Your task to perform on an android device: Open calendar and show me the first week of next month Image 0: 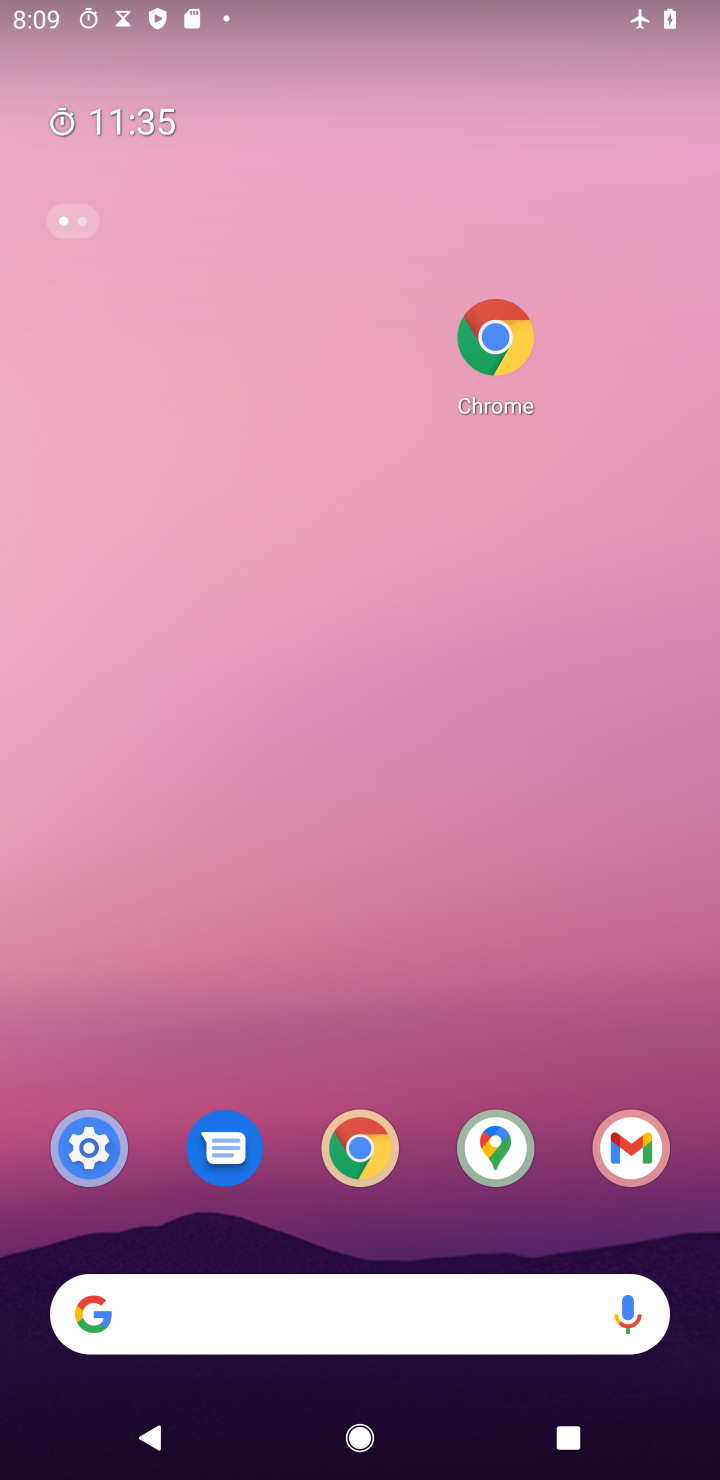
Step 0: press home button
Your task to perform on an android device: Open calendar and show me the first week of next month Image 1: 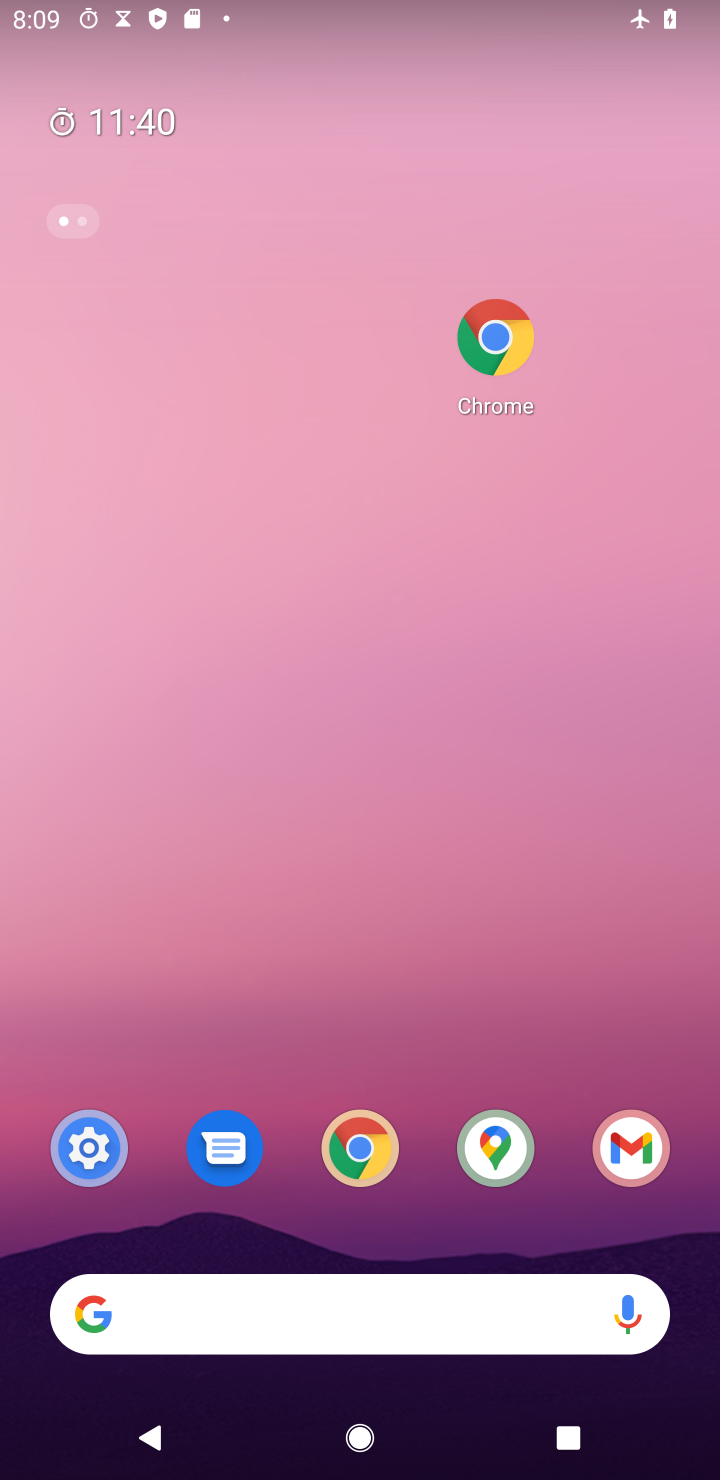
Step 1: drag from (542, 1040) to (454, 166)
Your task to perform on an android device: Open calendar and show me the first week of next month Image 2: 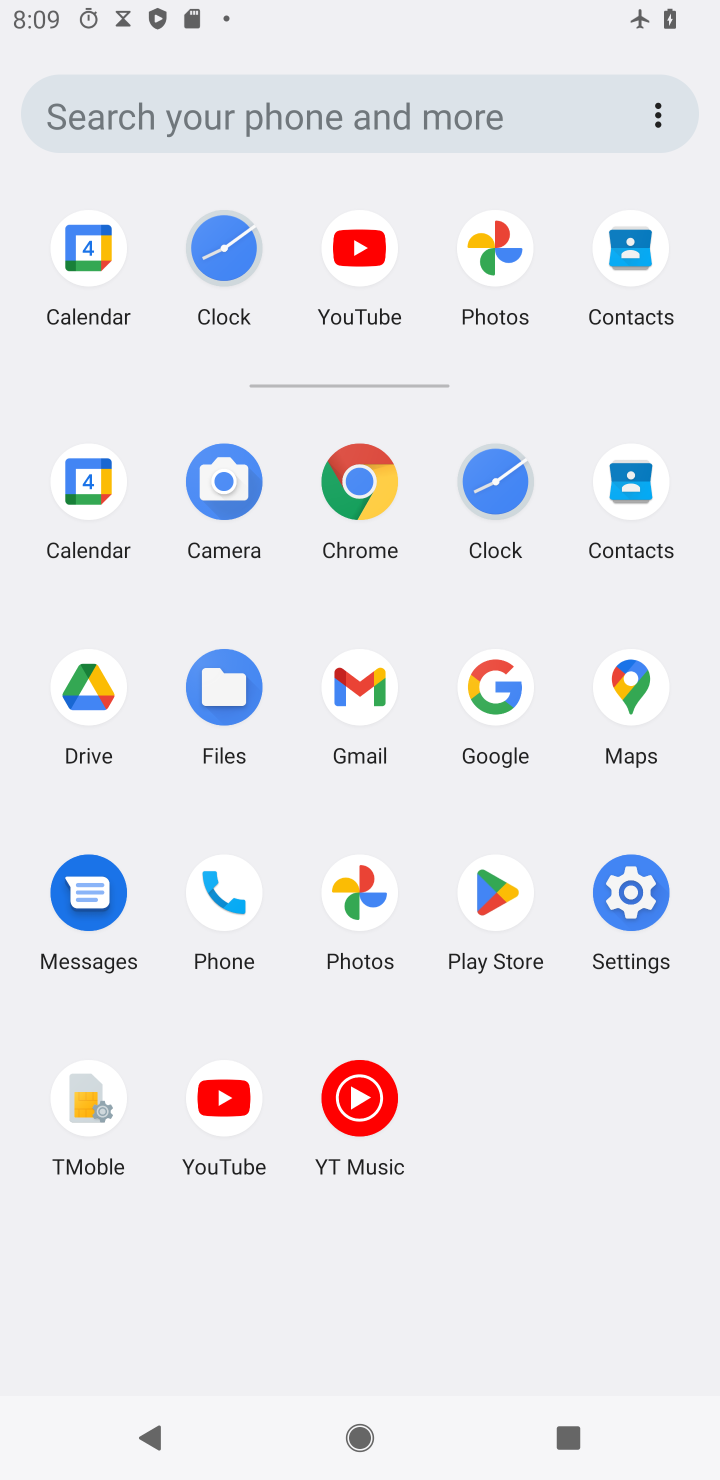
Step 2: click (80, 483)
Your task to perform on an android device: Open calendar and show me the first week of next month Image 3: 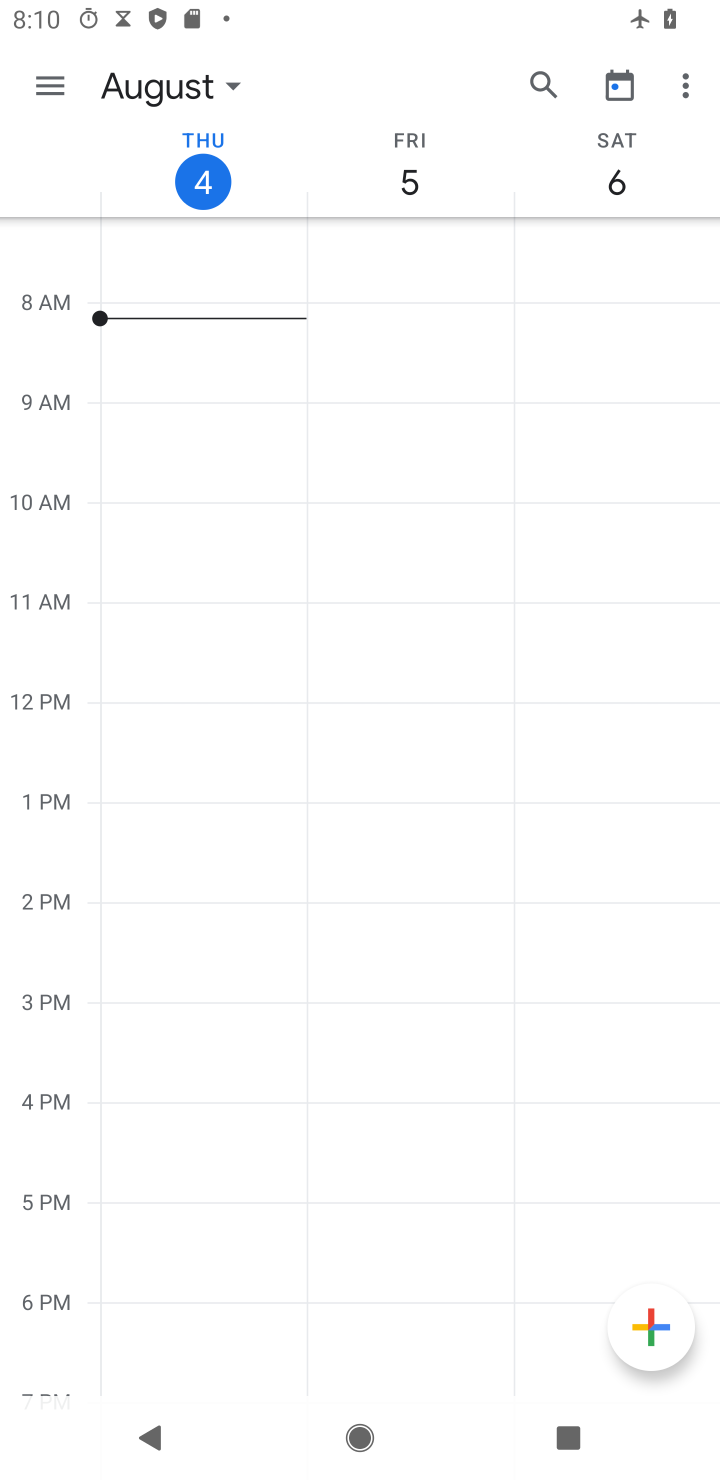
Step 3: click (51, 84)
Your task to perform on an android device: Open calendar and show me the first week of next month Image 4: 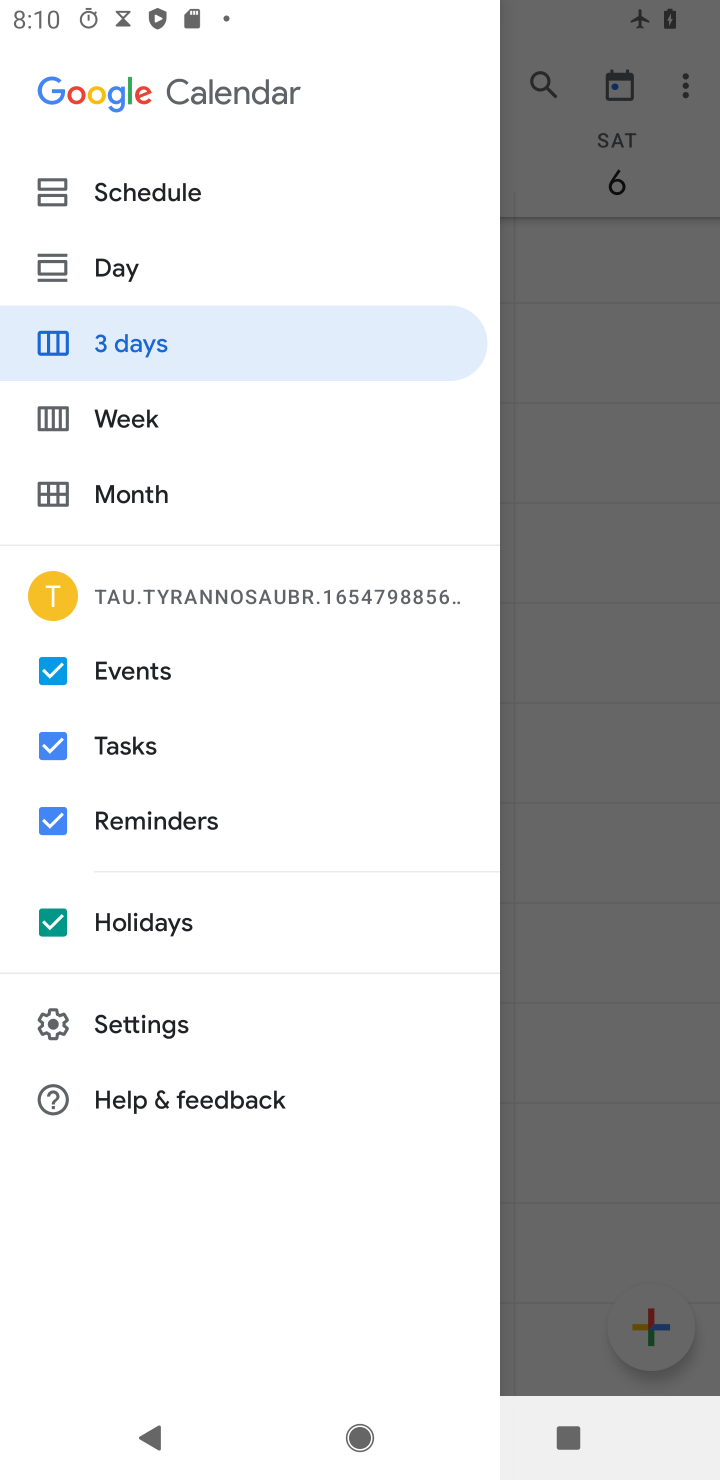
Step 4: click (146, 436)
Your task to perform on an android device: Open calendar and show me the first week of next month Image 5: 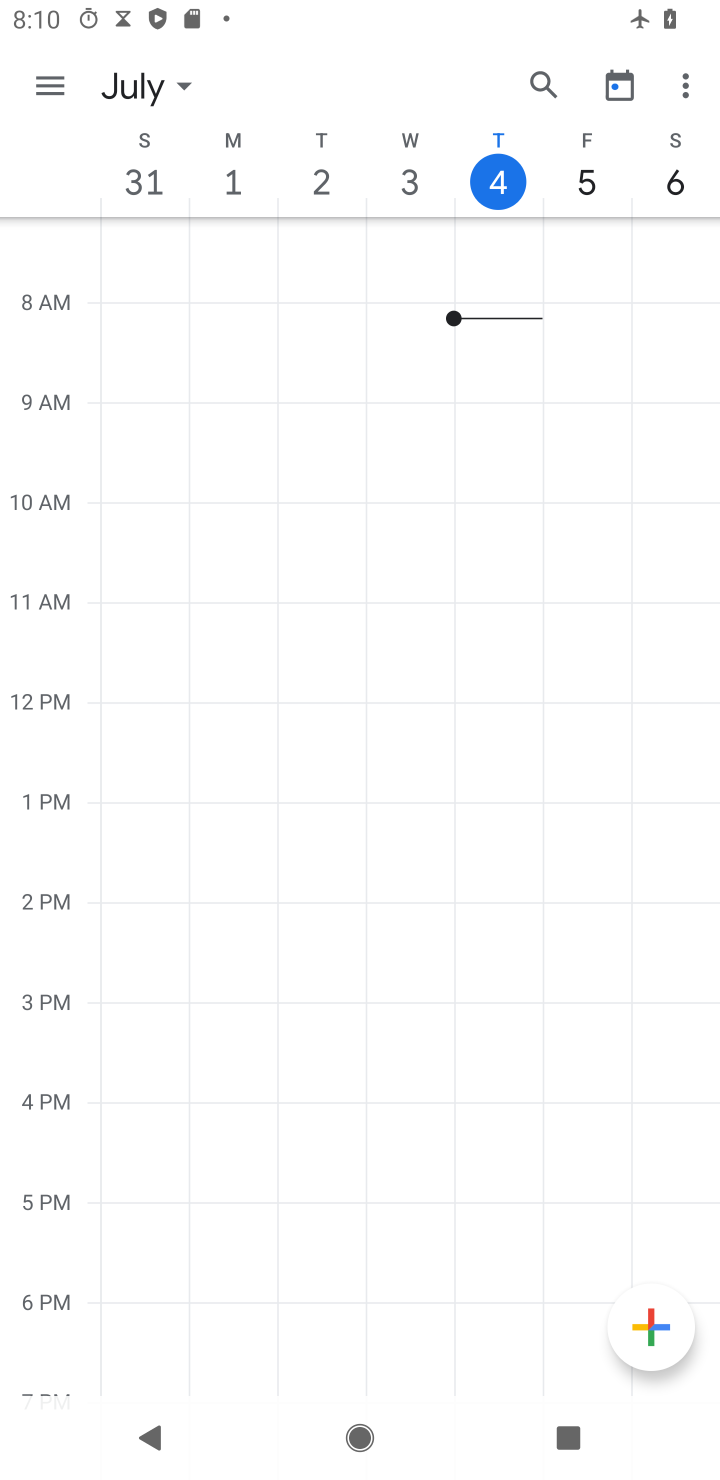
Step 5: click (186, 80)
Your task to perform on an android device: Open calendar and show me the first week of next month Image 6: 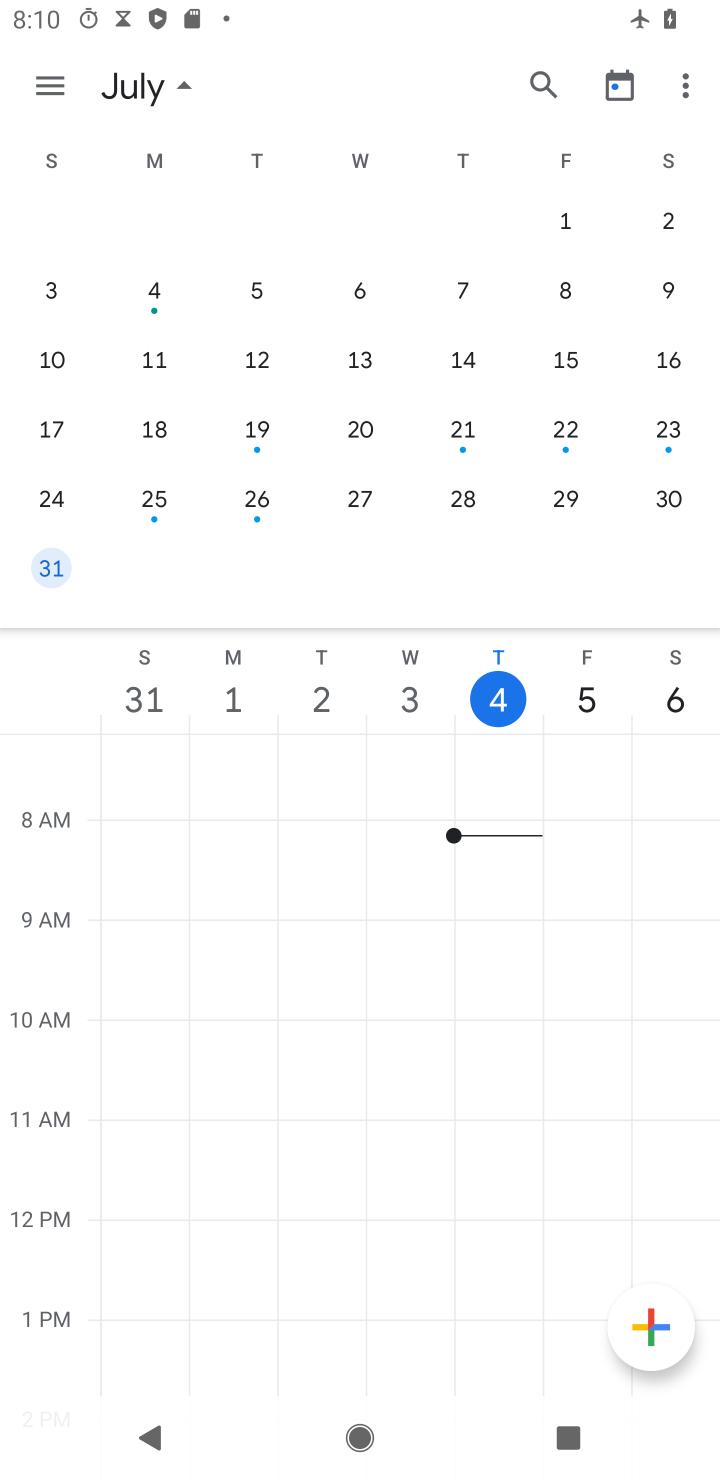
Step 6: drag from (670, 394) to (115, 392)
Your task to perform on an android device: Open calendar and show me the first week of next month Image 7: 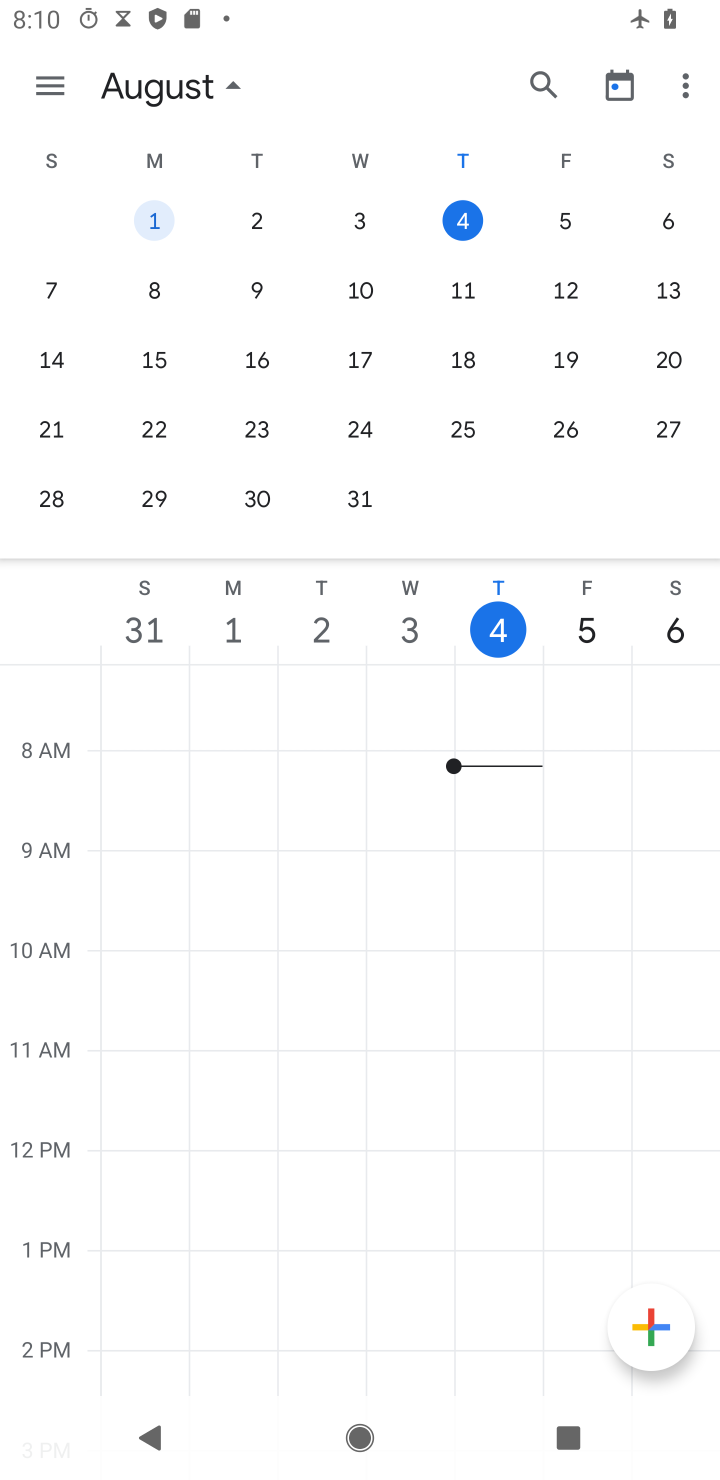
Step 7: drag from (669, 399) to (85, 419)
Your task to perform on an android device: Open calendar and show me the first week of next month Image 8: 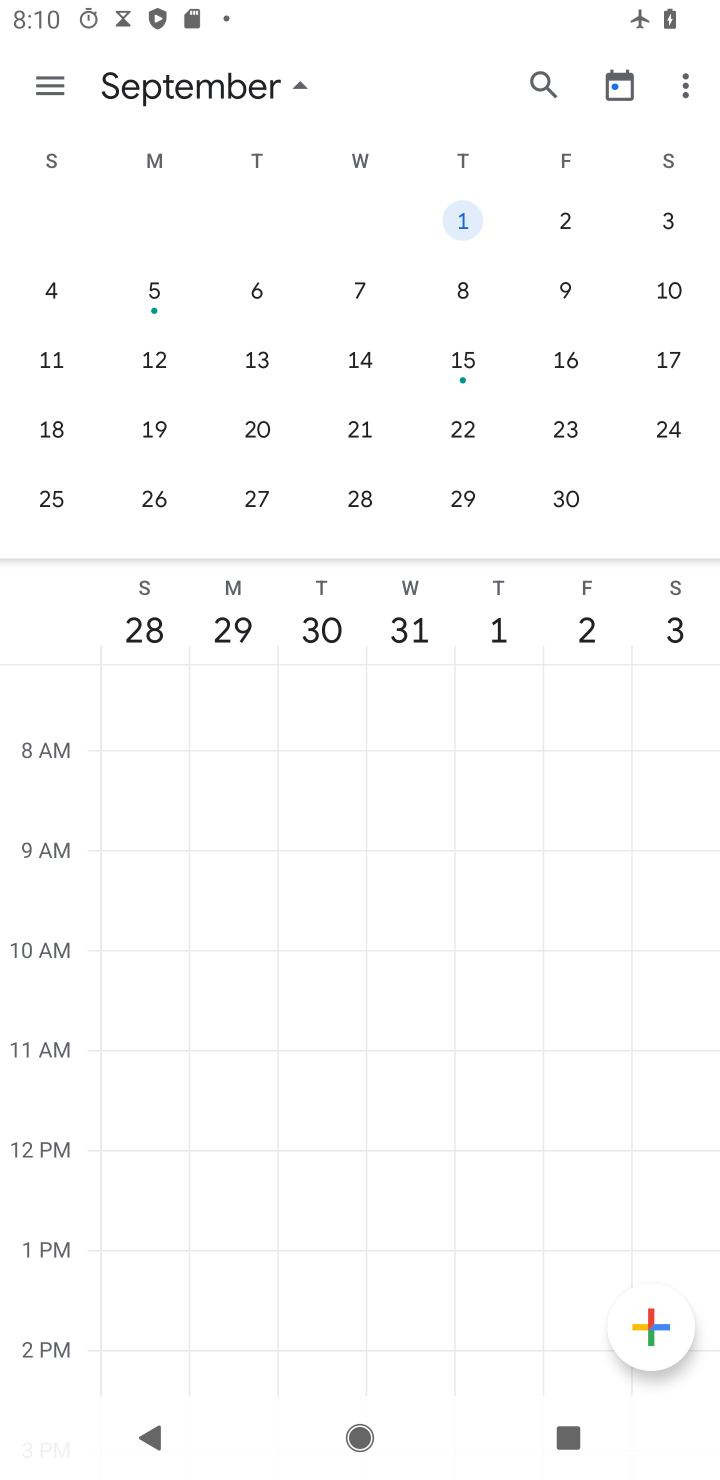
Step 8: click (356, 275)
Your task to perform on an android device: Open calendar and show me the first week of next month Image 9: 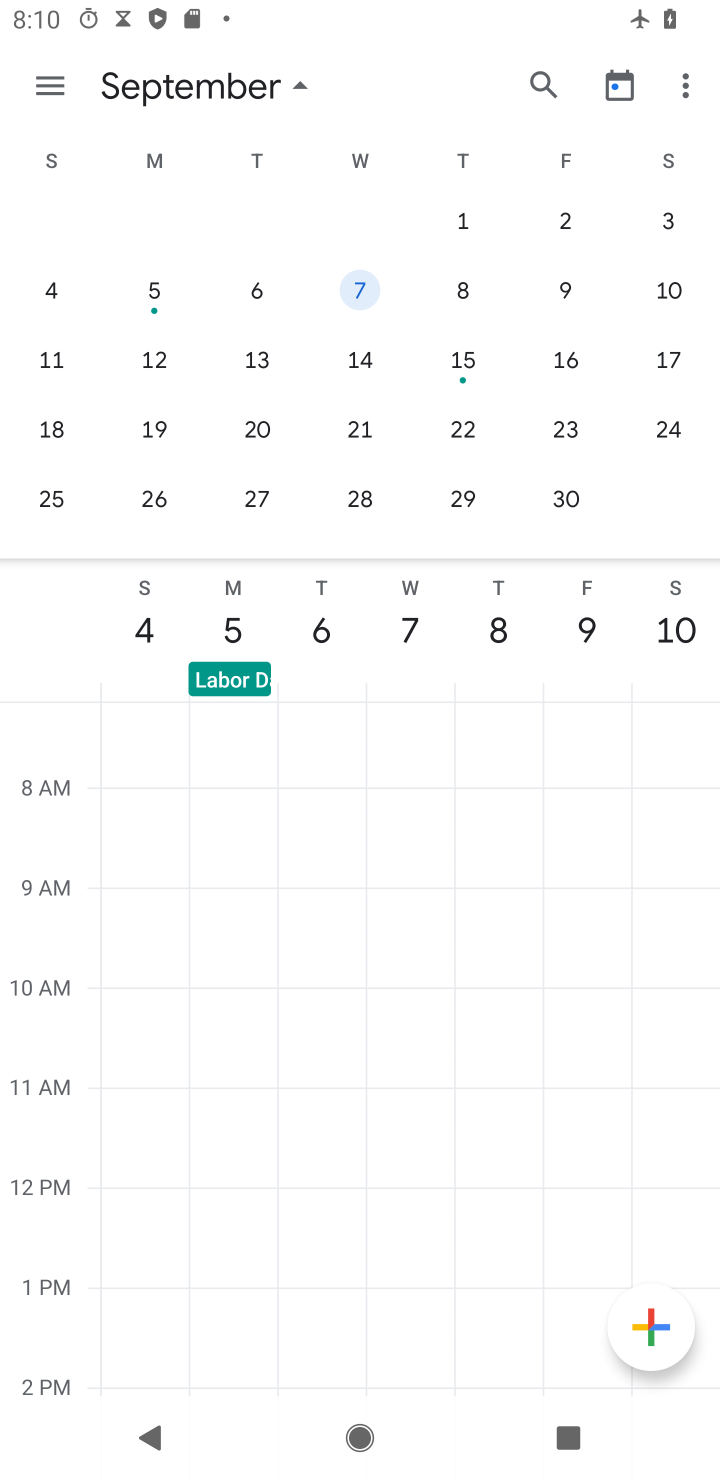
Step 9: task complete